Your task to perform on an android device: Open eBay Image 0: 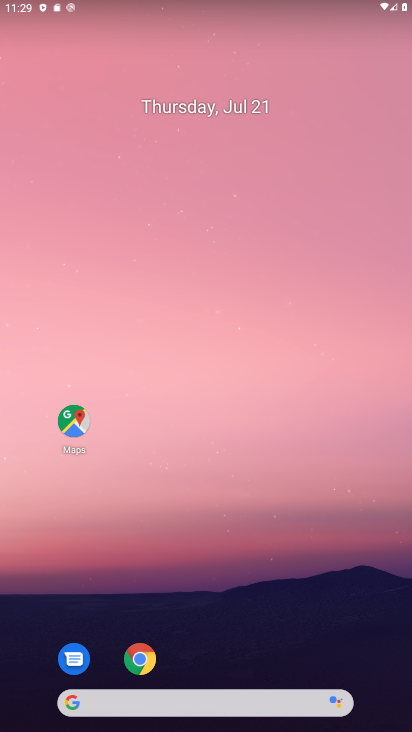
Step 0: click (136, 669)
Your task to perform on an android device: Open eBay Image 1: 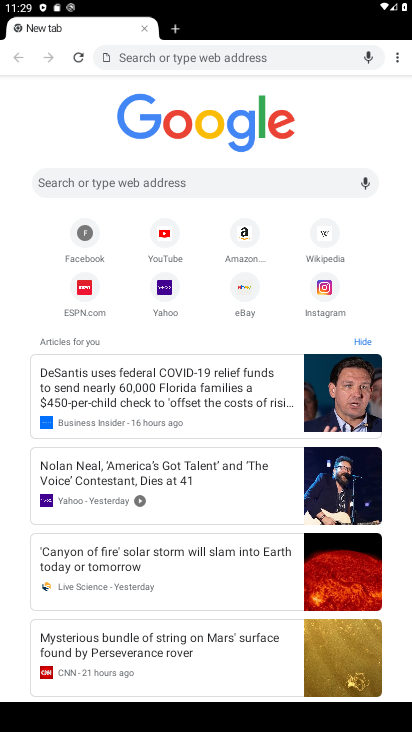
Step 1: click (244, 296)
Your task to perform on an android device: Open eBay Image 2: 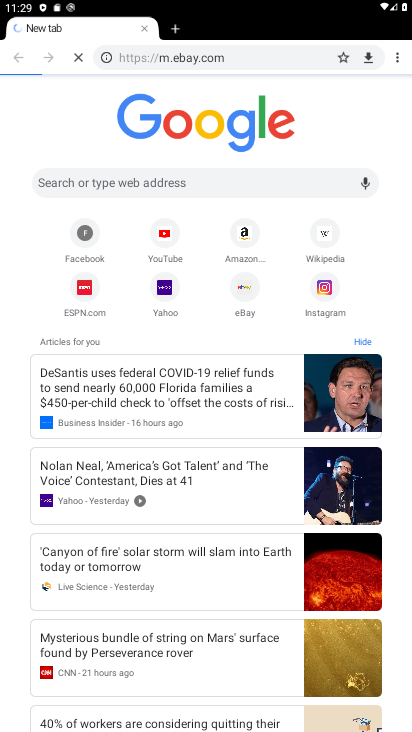
Step 2: task complete